Your task to perform on an android device: turn off priority inbox in the gmail app Image 0: 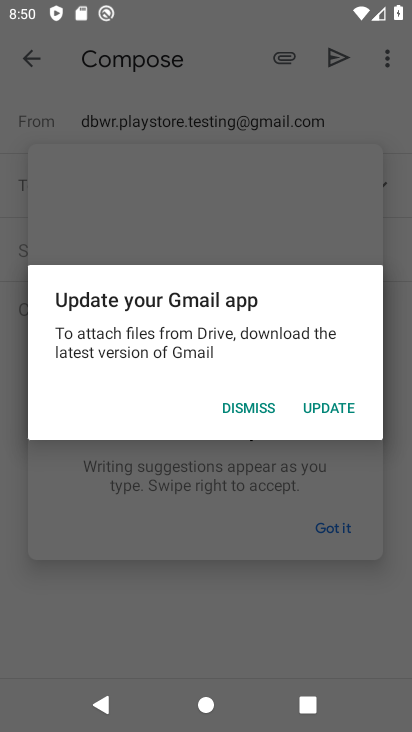
Step 0: press home button
Your task to perform on an android device: turn off priority inbox in the gmail app Image 1: 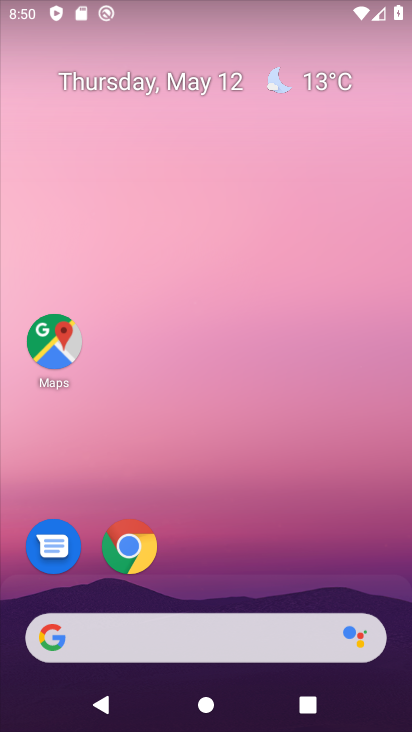
Step 1: drag from (316, 564) to (298, 100)
Your task to perform on an android device: turn off priority inbox in the gmail app Image 2: 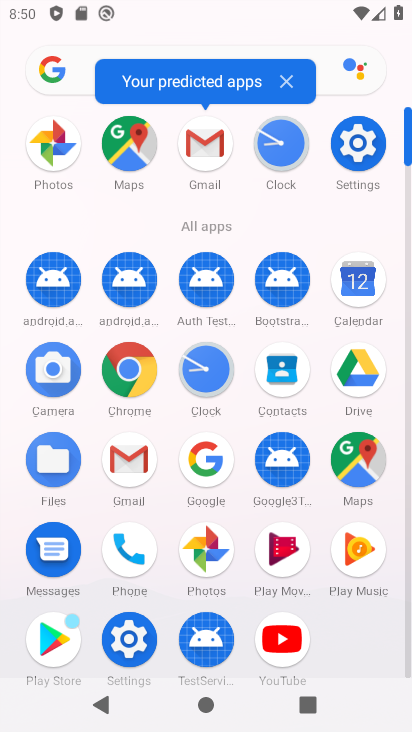
Step 2: click (126, 452)
Your task to perform on an android device: turn off priority inbox in the gmail app Image 3: 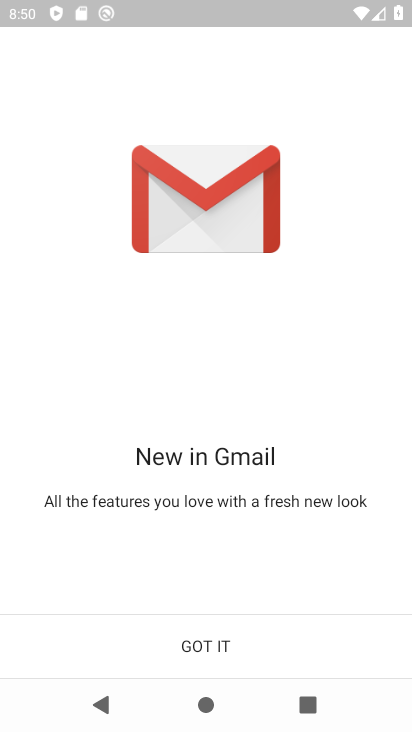
Step 3: click (205, 648)
Your task to perform on an android device: turn off priority inbox in the gmail app Image 4: 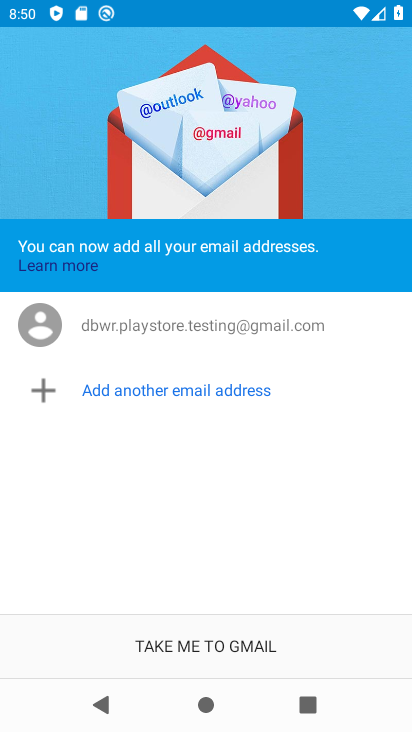
Step 4: click (205, 648)
Your task to perform on an android device: turn off priority inbox in the gmail app Image 5: 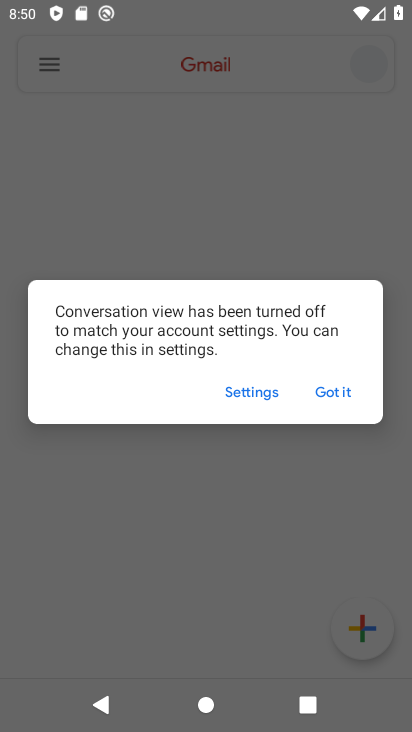
Step 5: click (328, 390)
Your task to perform on an android device: turn off priority inbox in the gmail app Image 6: 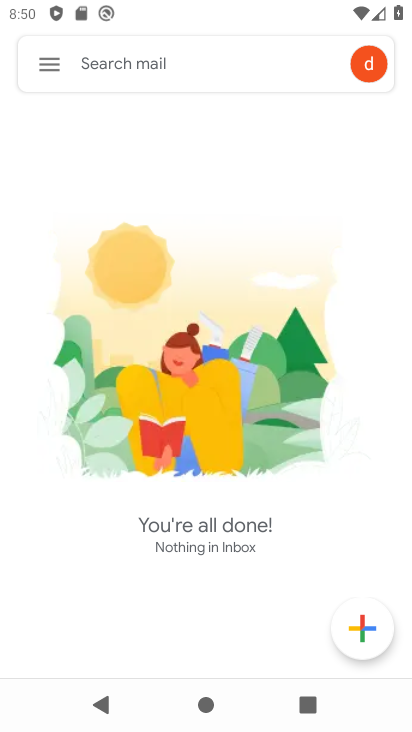
Step 6: click (42, 65)
Your task to perform on an android device: turn off priority inbox in the gmail app Image 7: 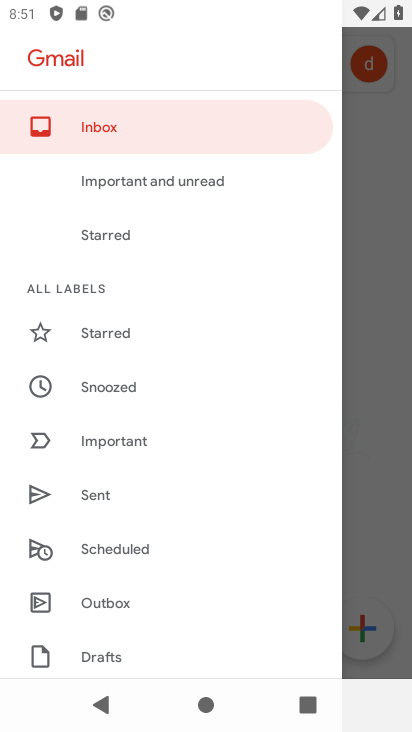
Step 7: drag from (181, 607) to (196, 255)
Your task to perform on an android device: turn off priority inbox in the gmail app Image 8: 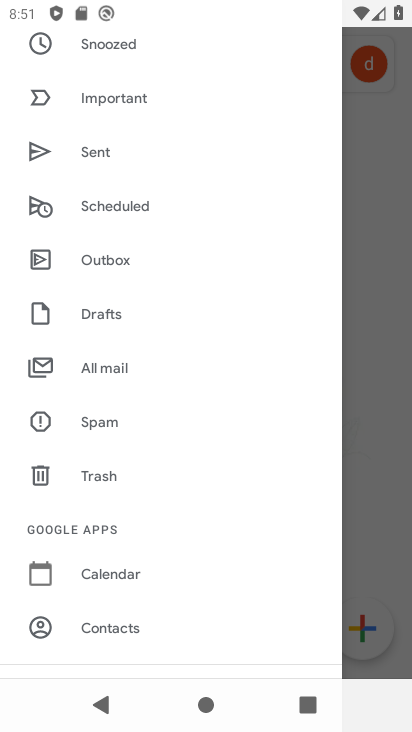
Step 8: drag from (162, 556) to (178, 185)
Your task to perform on an android device: turn off priority inbox in the gmail app Image 9: 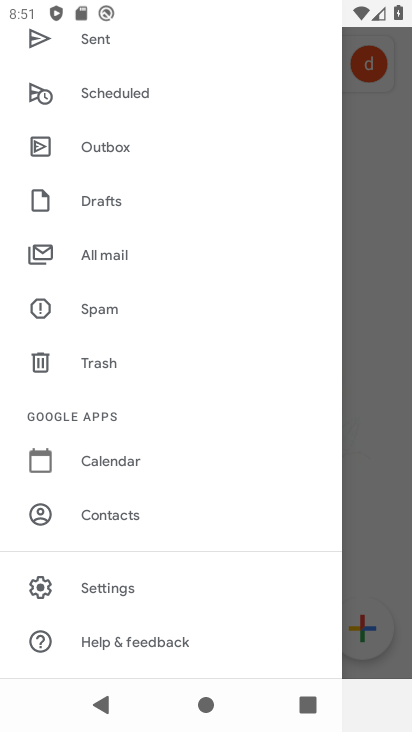
Step 9: click (122, 585)
Your task to perform on an android device: turn off priority inbox in the gmail app Image 10: 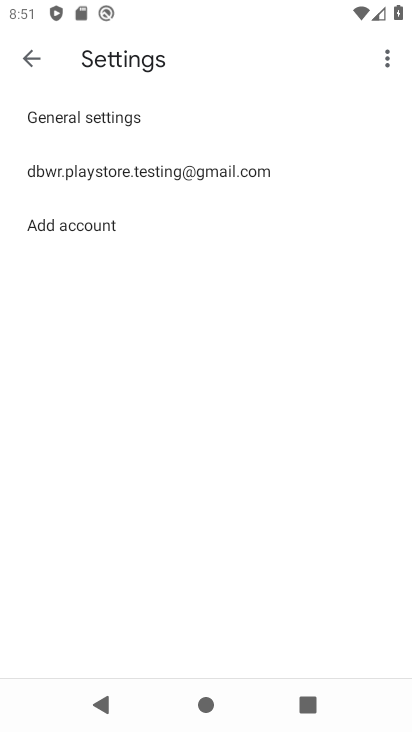
Step 10: click (106, 165)
Your task to perform on an android device: turn off priority inbox in the gmail app Image 11: 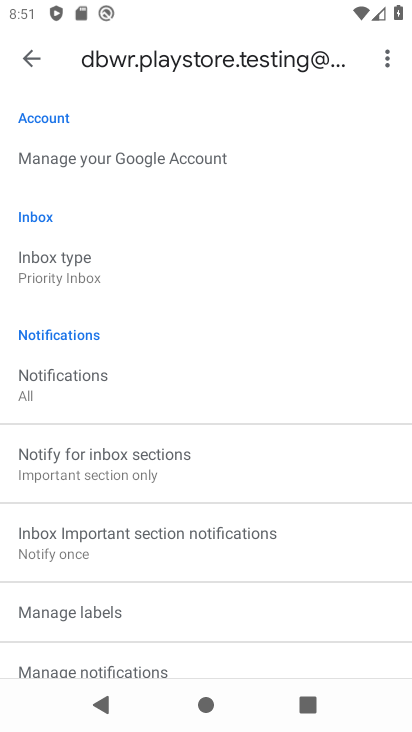
Step 11: click (71, 269)
Your task to perform on an android device: turn off priority inbox in the gmail app Image 12: 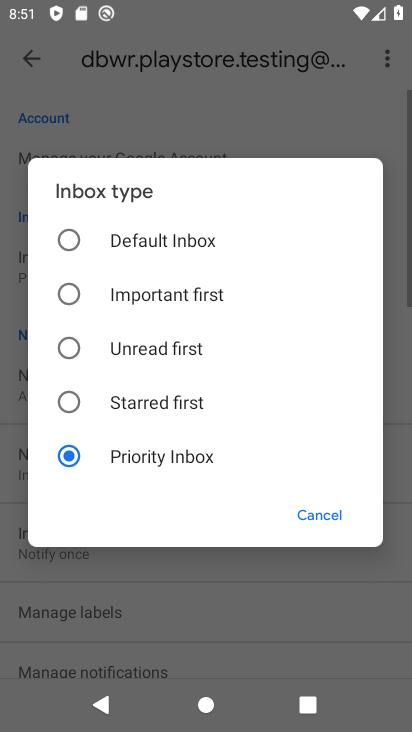
Step 12: click (151, 238)
Your task to perform on an android device: turn off priority inbox in the gmail app Image 13: 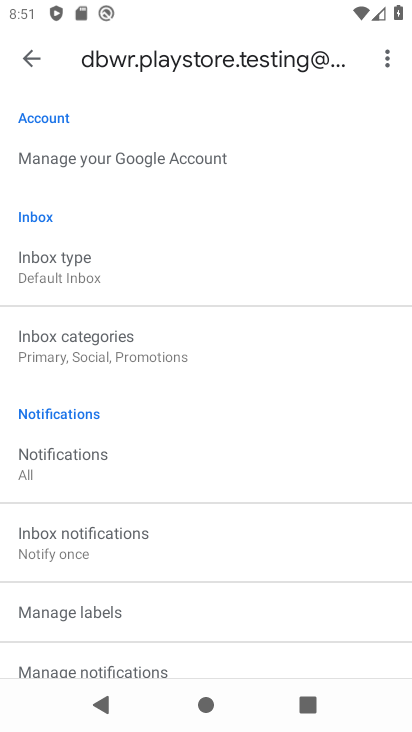
Step 13: task complete